Your task to perform on an android device: Open Chrome and go to settings Image 0: 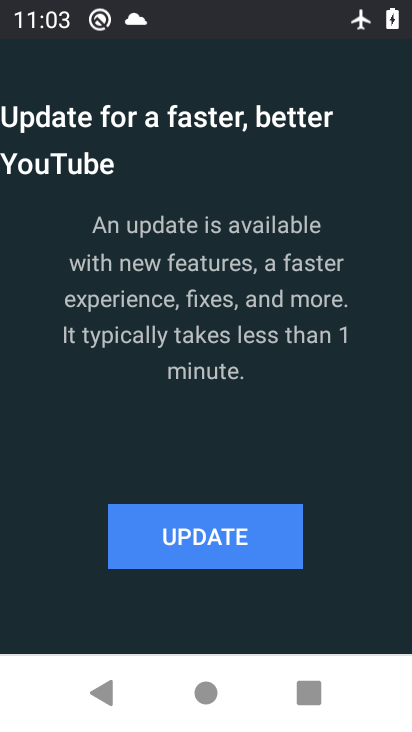
Step 0: click (407, 586)
Your task to perform on an android device: Open Chrome and go to settings Image 1: 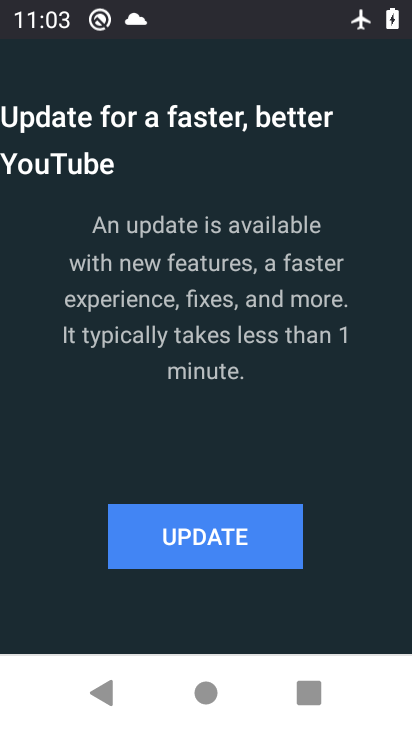
Step 1: press home button
Your task to perform on an android device: Open Chrome and go to settings Image 2: 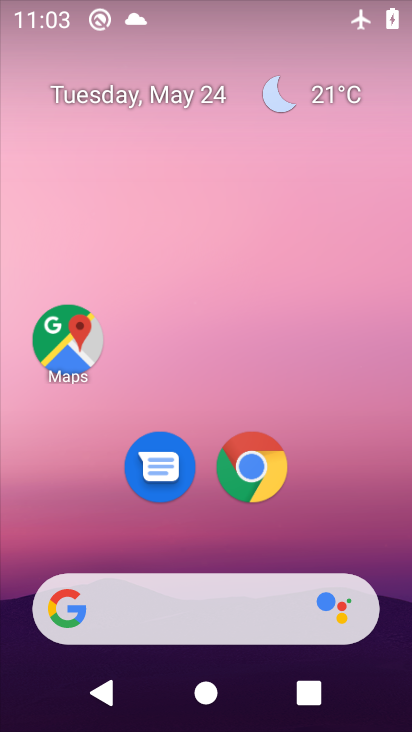
Step 2: drag from (217, 524) to (244, 2)
Your task to perform on an android device: Open Chrome and go to settings Image 3: 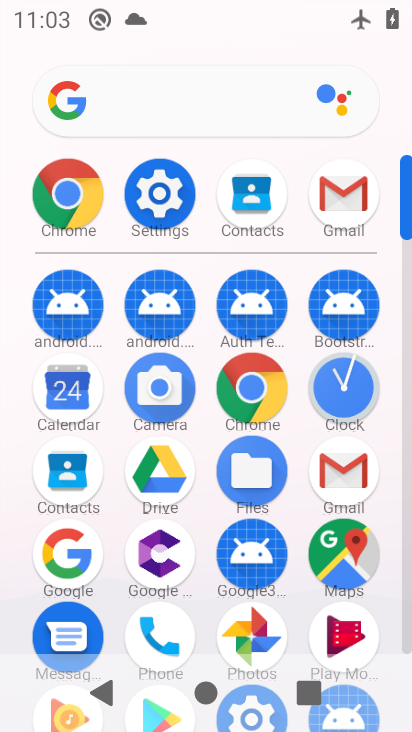
Step 3: click (171, 203)
Your task to perform on an android device: Open Chrome and go to settings Image 4: 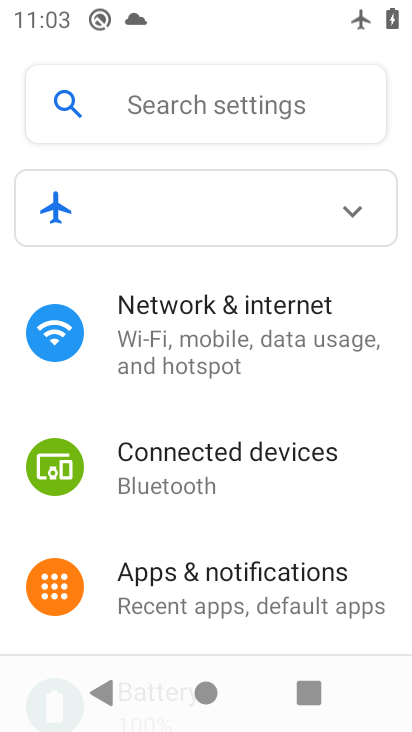
Step 4: drag from (247, 526) to (280, 119)
Your task to perform on an android device: Open Chrome and go to settings Image 5: 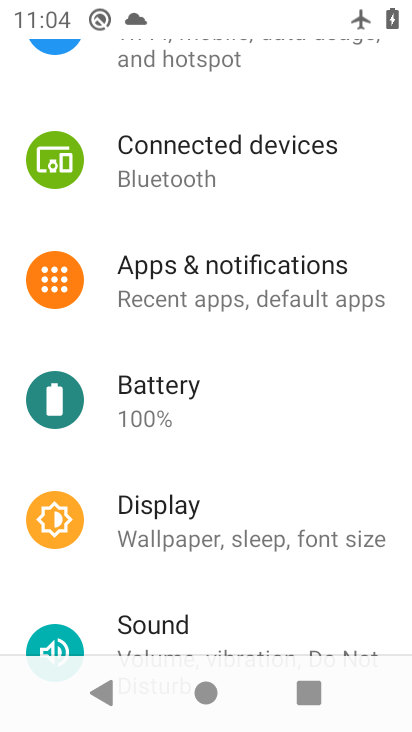
Step 5: press home button
Your task to perform on an android device: Open Chrome and go to settings Image 6: 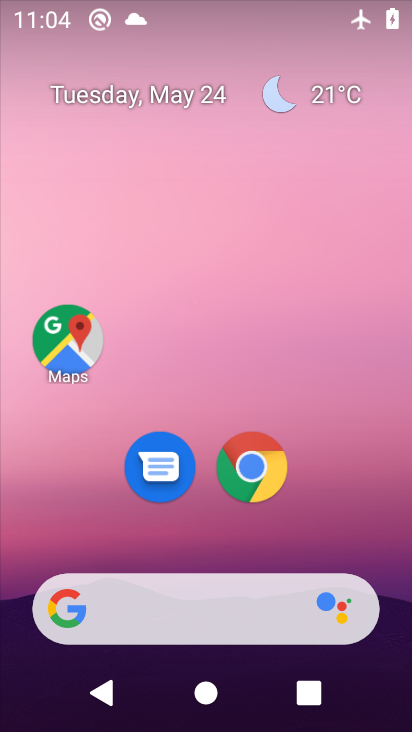
Step 6: click (246, 468)
Your task to perform on an android device: Open Chrome and go to settings Image 7: 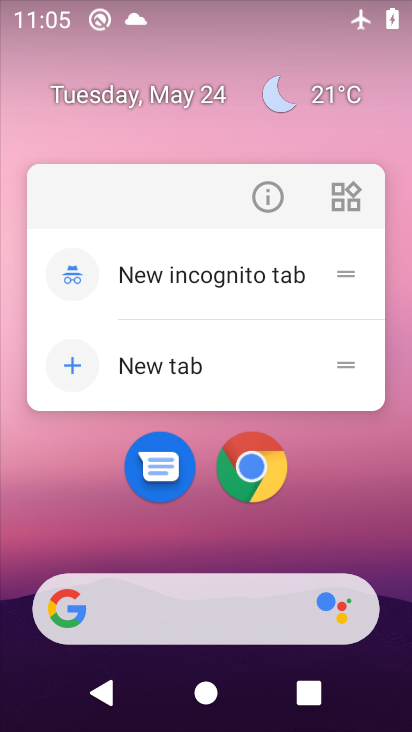
Step 7: click (268, 204)
Your task to perform on an android device: Open Chrome and go to settings Image 8: 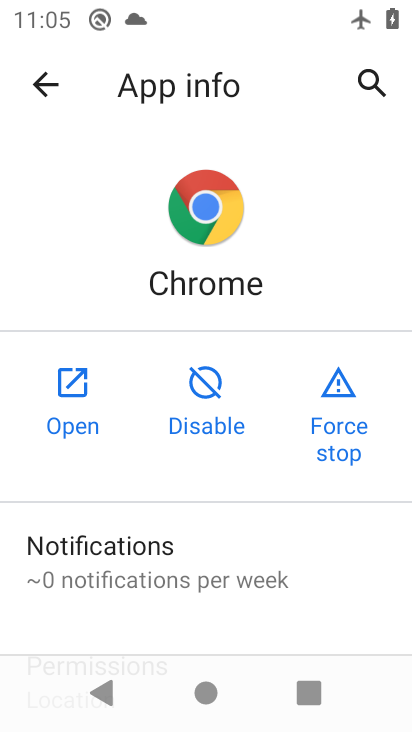
Step 8: click (76, 375)
Your task to perform on an android device: Open Chrome and go to settings Image 9: 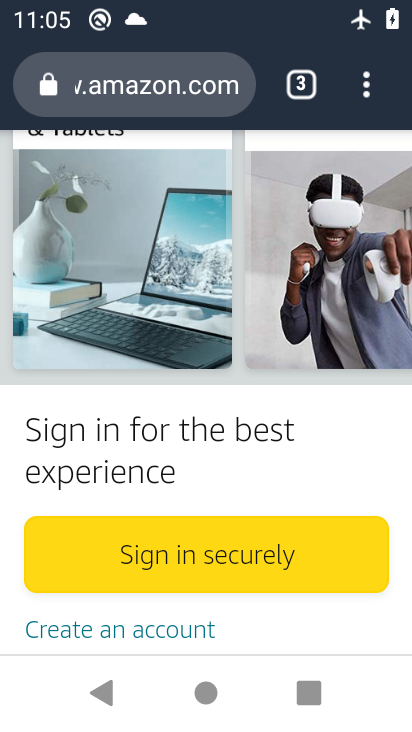
Step 9: click (383, 70)
Your task to perform on an android device: Open Chrome and go to settings Image 10: 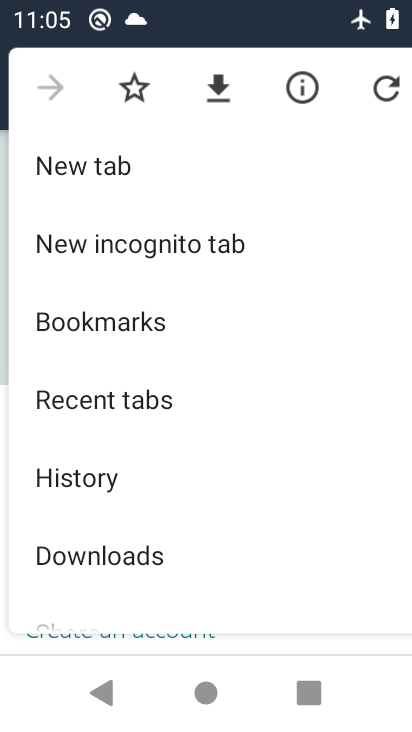
Step 10: drag from (134, 495) to (280, 60)
Your task to perform on an android device: Open Chrome and go to settings Image 11: 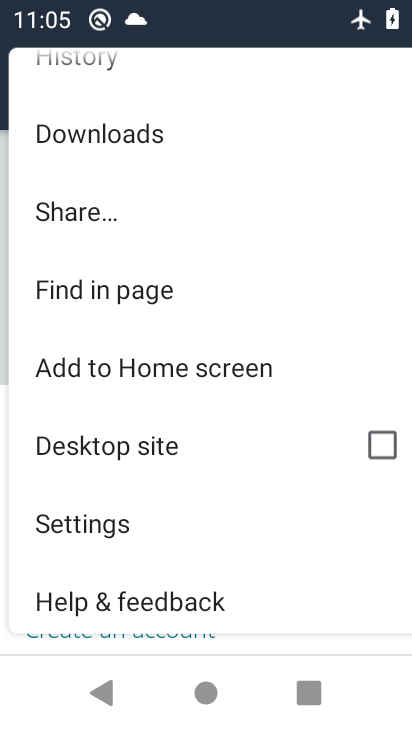
Step 11: click (131, 524)
Your task to perform on an android device: Open Chrome and go to settings Image 12: 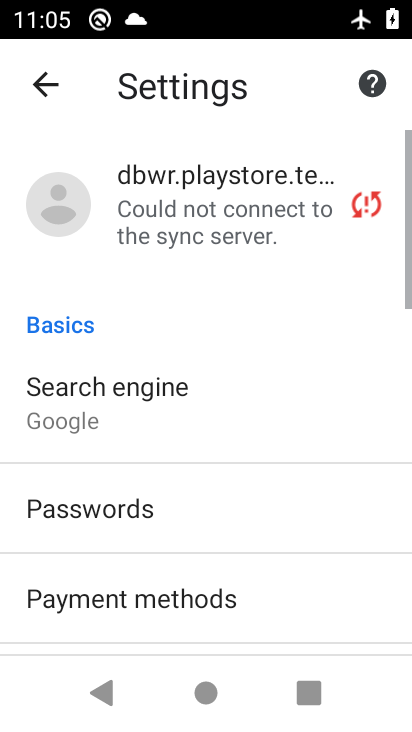
Step 12: task complete